Your task to perform on an android device: Open Google Maps and go to "Timeline" Image 0: 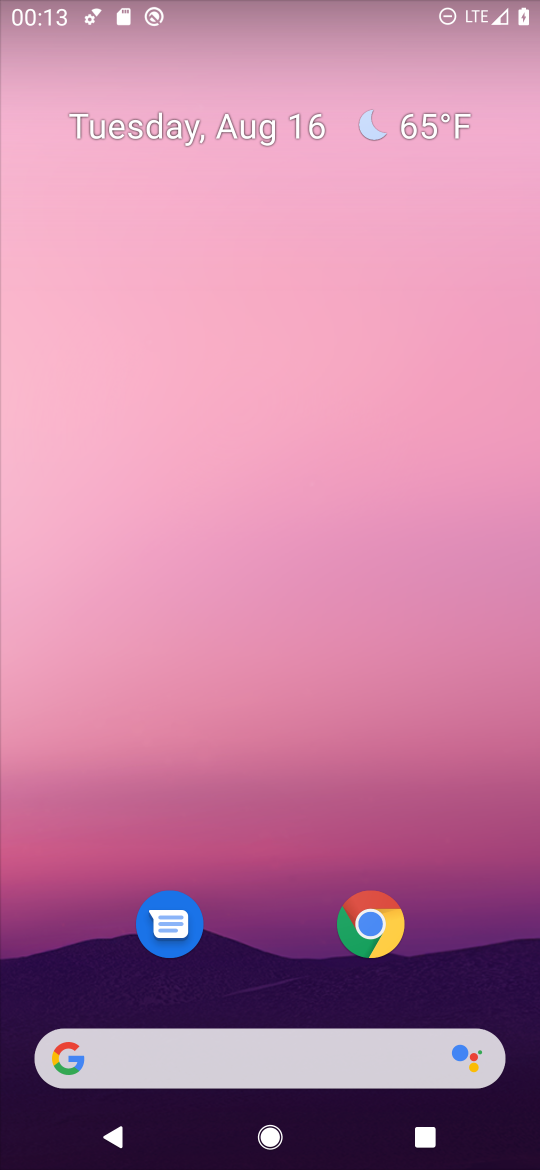
Step 0: drag from (416, 837) to (320, 204)
Your task to perform on an android device: Open Google Maps and go to "Timeline" Image 1: 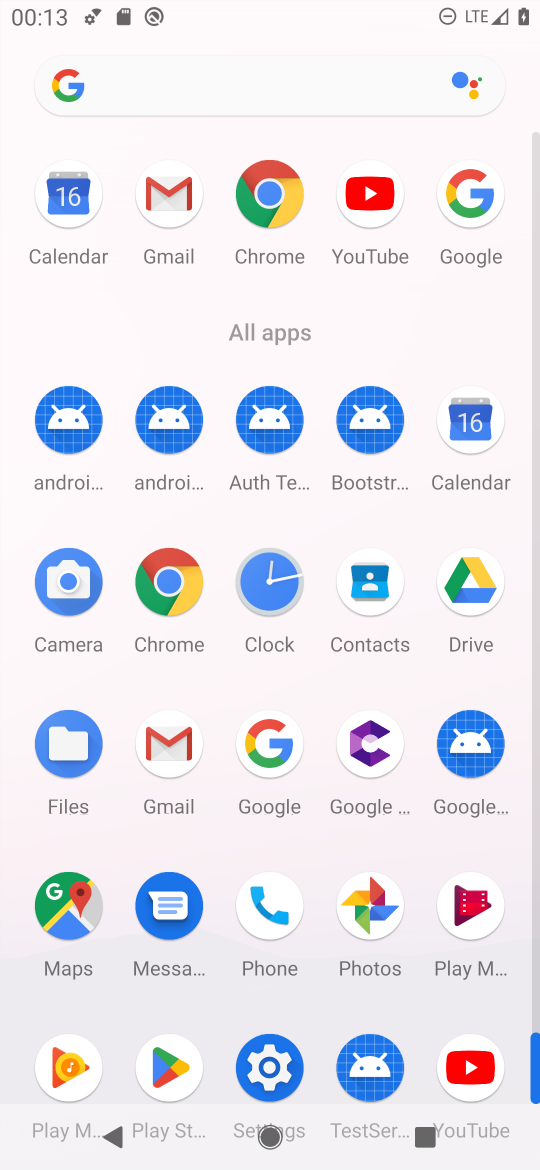
Step 1: click (63, 898)
Your task to perform on an android device: Open Google Maps and go to "Timeline" Image 2: 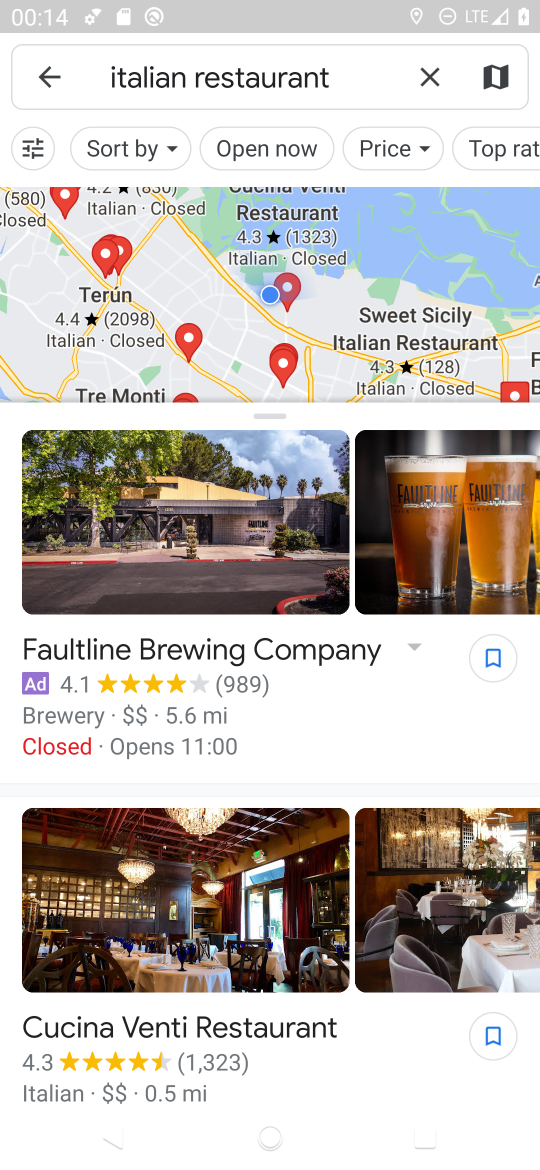
Step 2: click (40, 65)
Your task to perform on an android device: Open Google Maps and go to "Timeline" Image 3: 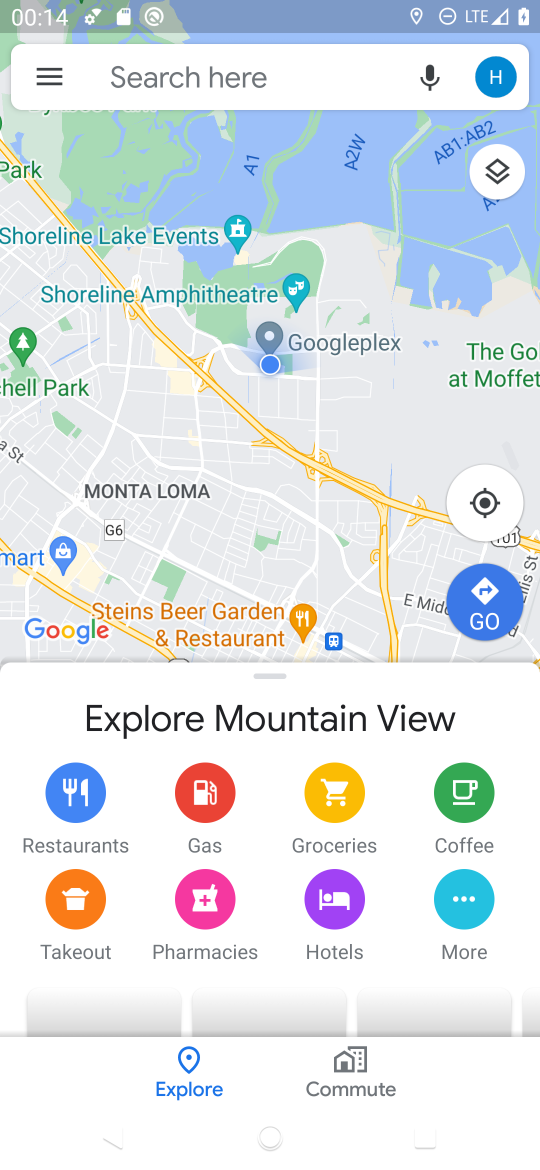
Step 3: click (505, 89)
Your task to perform on an android device: Open Google Maps and go to "Timeline" Image 4: 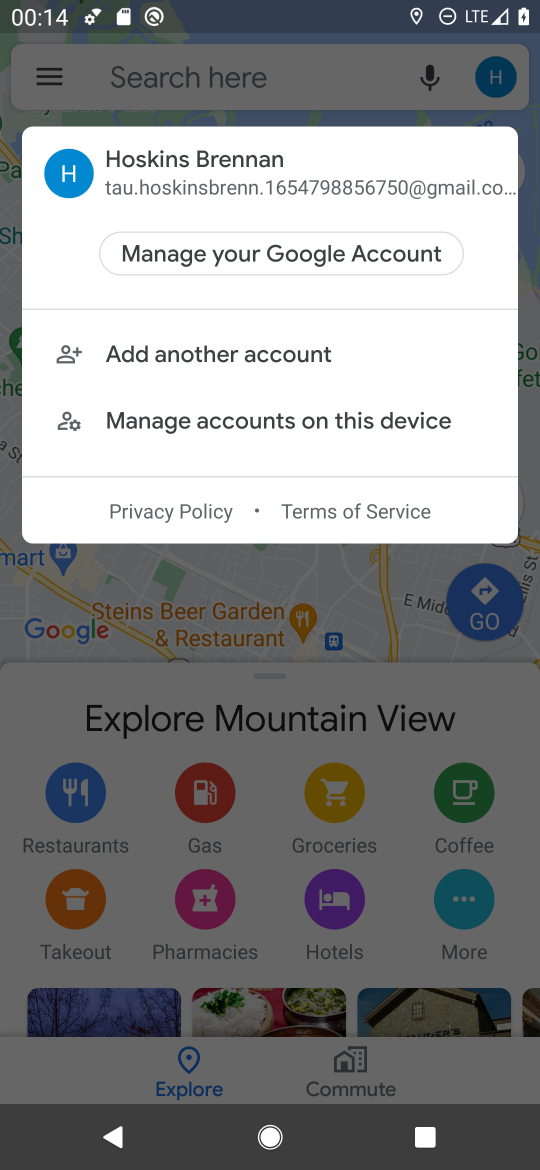
Step 4: click (50, 78)
Your task to perform on an android device: Open Google Maps and go to "Timeline" Image 5: 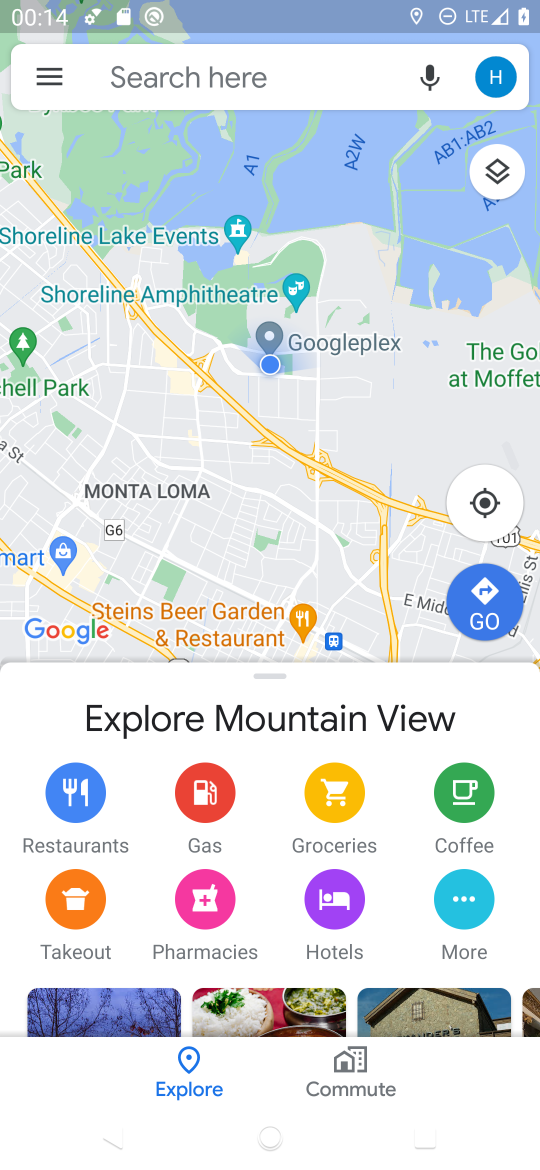
Step 5: click (50, 78)
Your task to perform on an android device: Open Google Maps and go to "Timeline" Image 6: 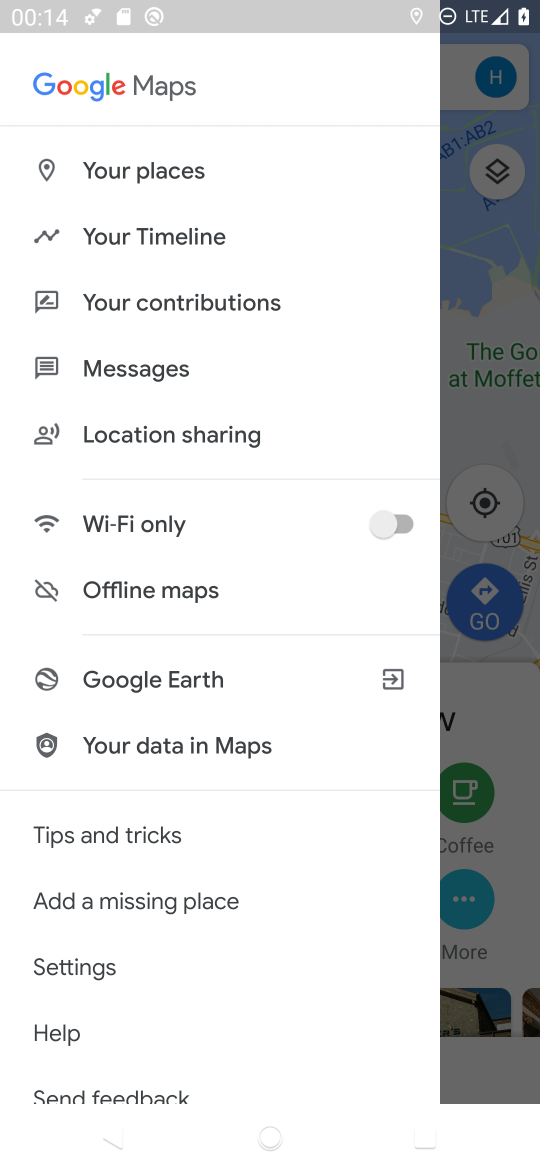
Step 6: click (145, 240)
Your task to perform on an android device: Open Google Maps and go to "Timeline" Image 7: 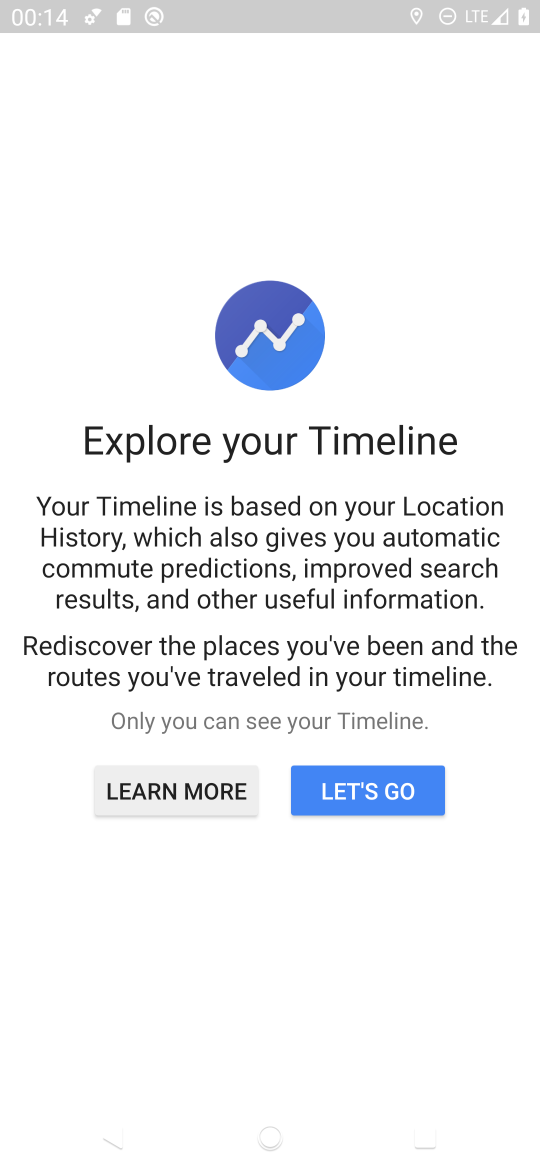
Step 7: click (386, 796)
Your task to perform on an android device: Open Google Maps and go to "Timeline" Image 8: 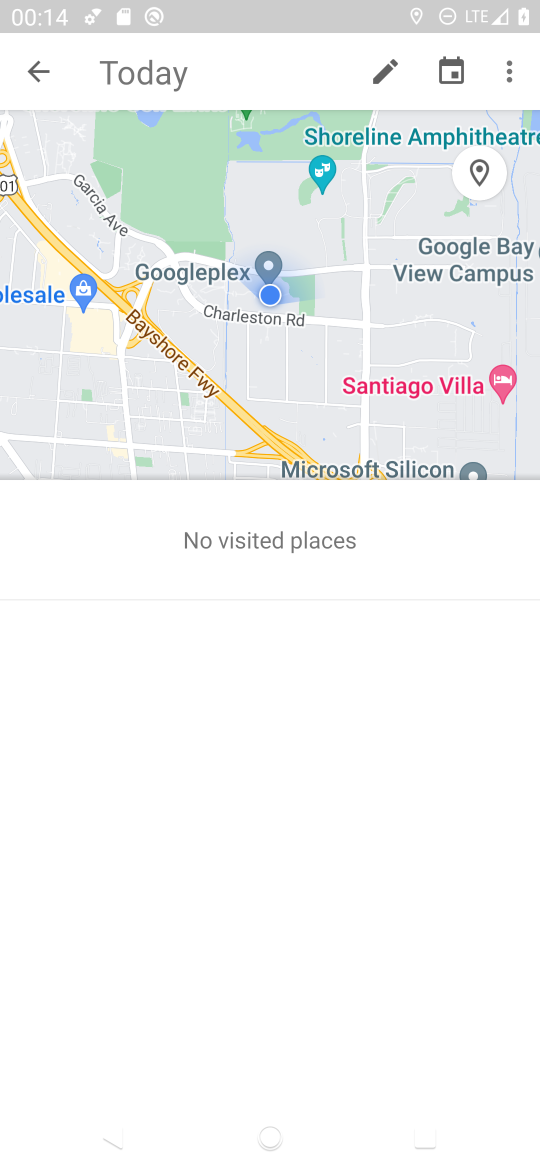
Step 8: task complete